Your task to perform on an android device: check battery use Image 0: 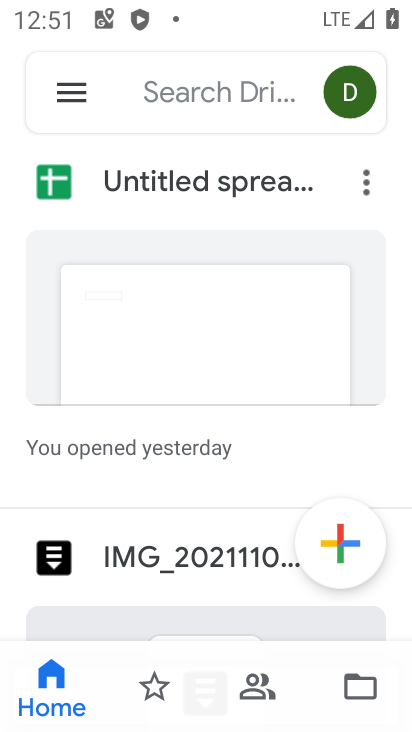
Step 0: press back button
Your task to perform on an android device: check battery use Image 1: 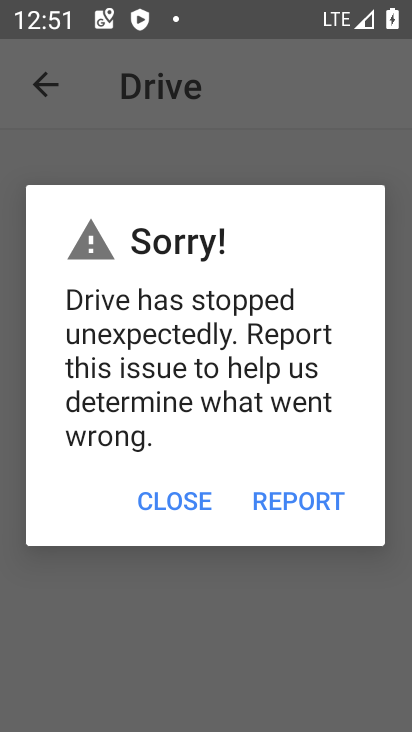
Step 1: press home button
Your task to perform on an android device: check battery use Image 2: 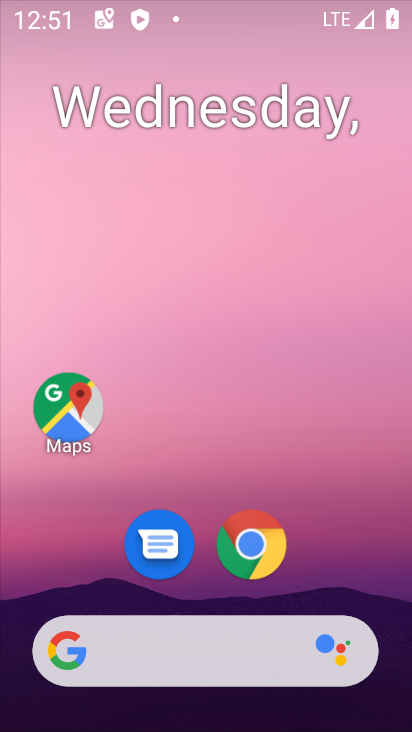
Step 2: drag from (380, 623) to (330, 1)
Your task to perform on an android device: check battery use Image 3: 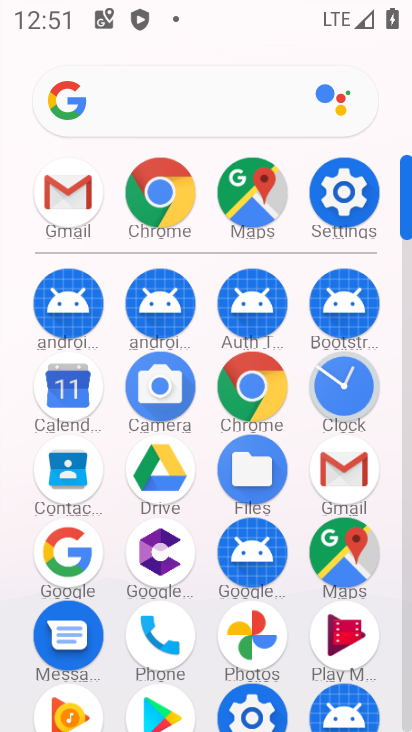
Step 3: click (338, 217)
Your task to perform on an android device: check battery use Image 4: 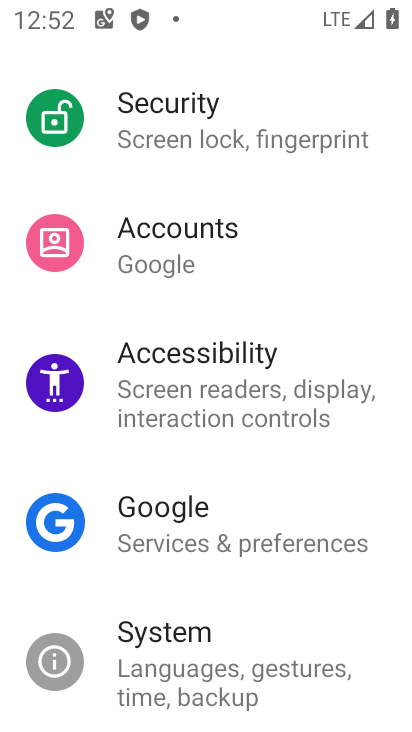
Step 4: drag from (197, 180) to (243, 574)
Your task to perform on an android device: check battery use Image 5: 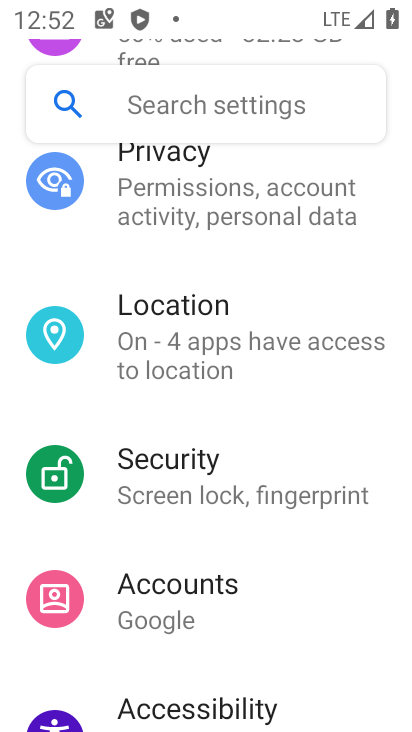
Step 5: drag from (195, 292) to (240, 669)
Your task to perform on an android device: check battery use Image 6: 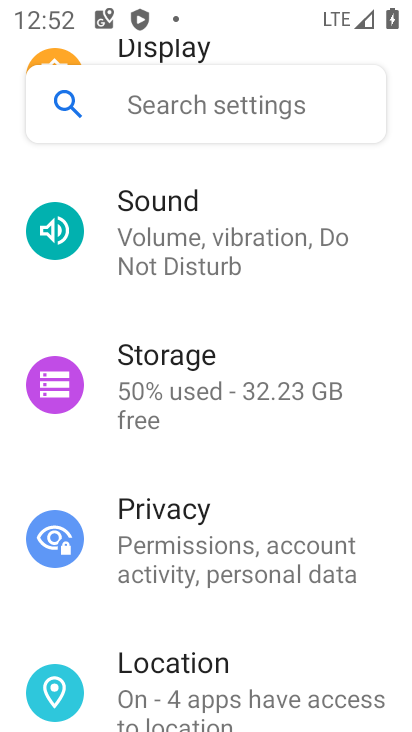
Step 6: drag from (183, 262) to (225, 631)
Your task to perform on an android device: check battery use Image 7: 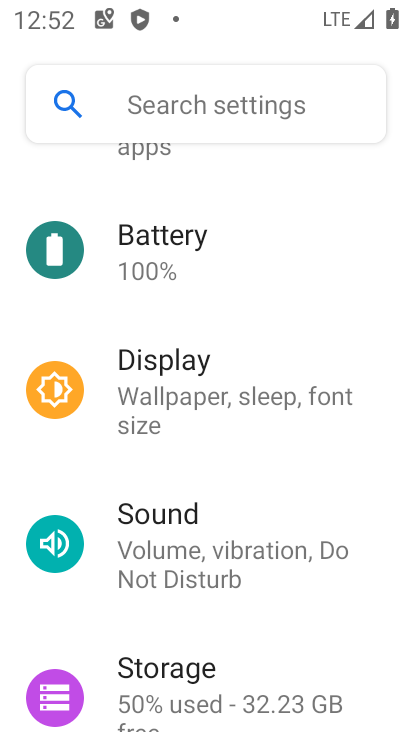
Step 7: click (154, 261)
Your task to perform on an android device: check battery use Image 8: 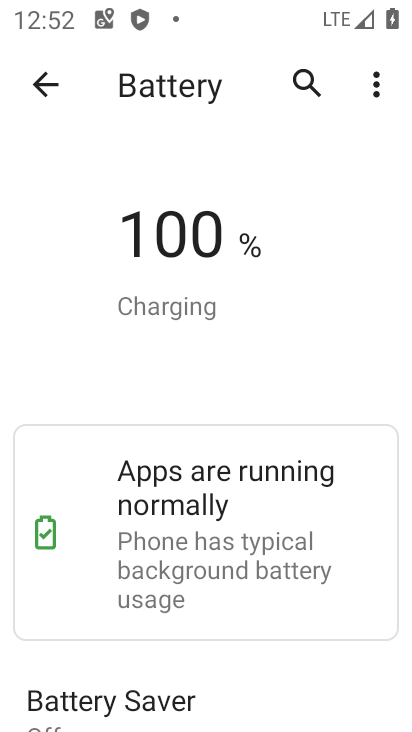
Step 8: task complete